Your task to perform on an android device: change the upload size in google photos Image 0: 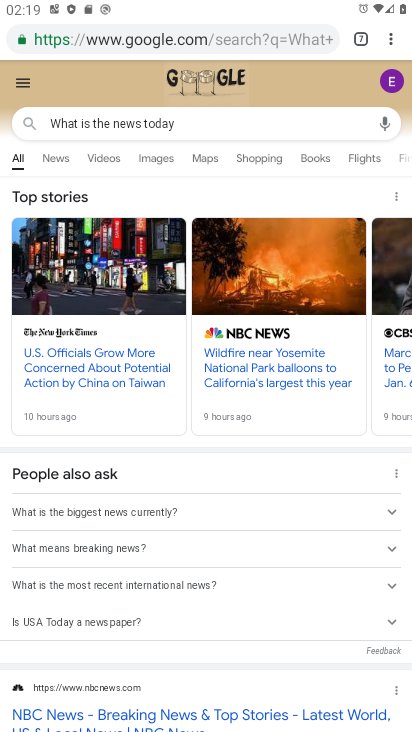
Step 0: press home button
Your task to perform on an android device: change the upload size in google photos Image 1: 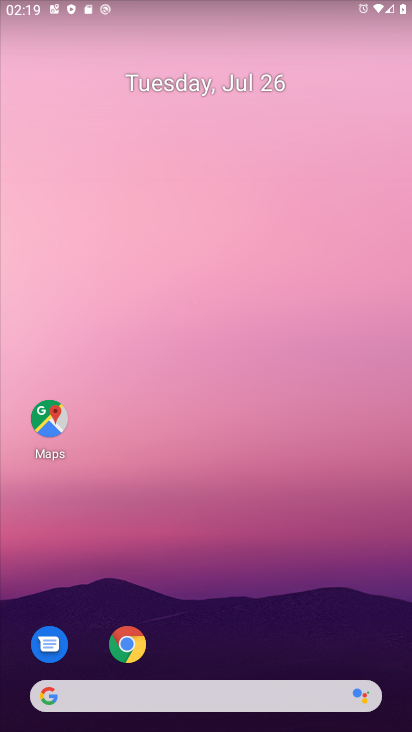
Step 1: drag from (279, 649) to (267, 86)
Your task to perform on an android device: change the upload size in google photos Image 2: 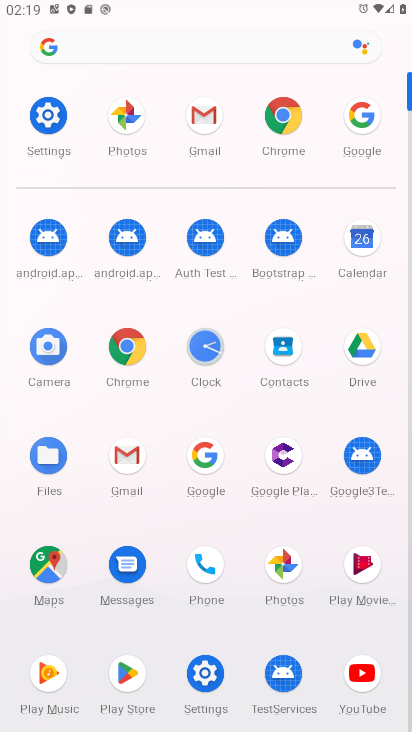
Step 2: click (278, 554)
Your task to perform on an android device: change the upload size in google photos Image 3: 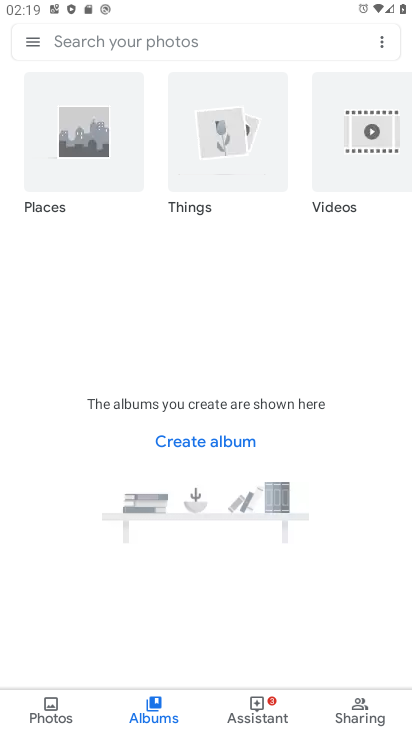
Step 3: click (25, 36)
Your task to perform on an android device: change the upload size in google photos Image 4: 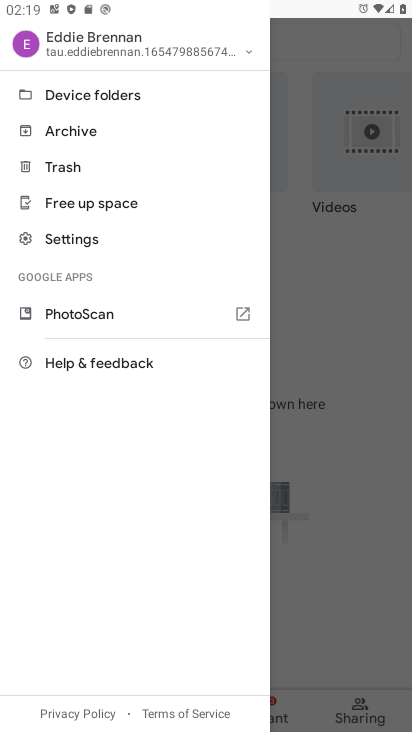
Step 4: click (77, 243)
Your task to perform on an android device: change the upload size in google photos Image 5: 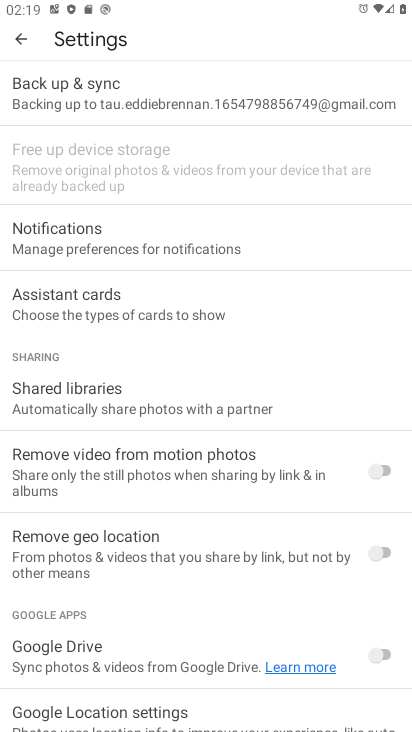
Step 5: click (63, 78)
Your task to perform on an android device: change the upload size in google photos Image 6: 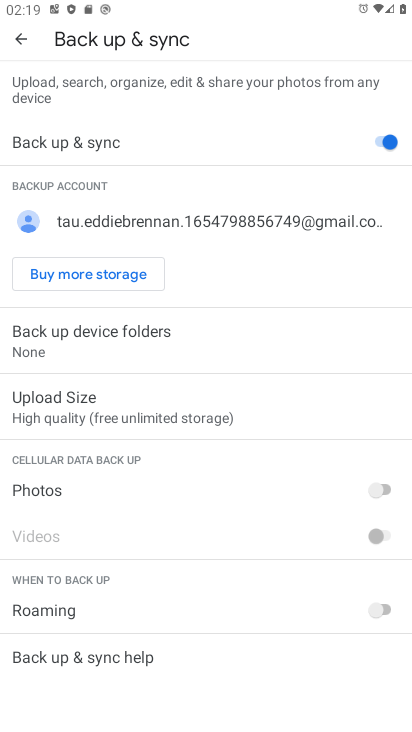
Step 6: click (126, 395)
Your task to perform on an android device: change the upload size in google photos Image 7: 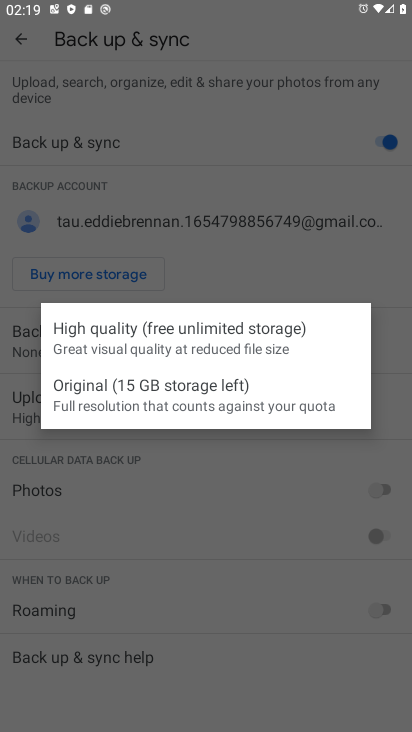
Step 7: click (86, 392)
Your task to perform on an android device: change the upload size in google photos Image 8: 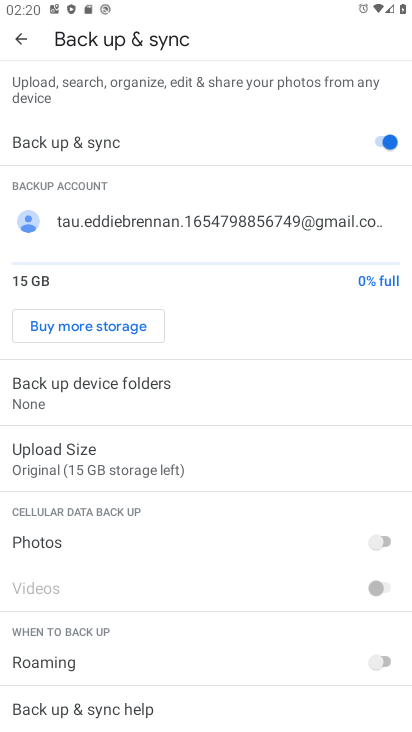
Step 8: task complete